Your task to perform on an android device: stop showing notifications on the lock screen Image 0: 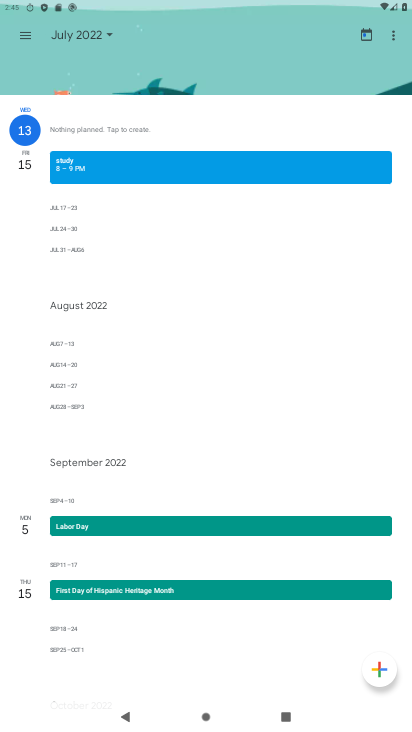
Step 0: press home button
Your task to perform on an android device: stop showing notifications on the lock screen Image 1: 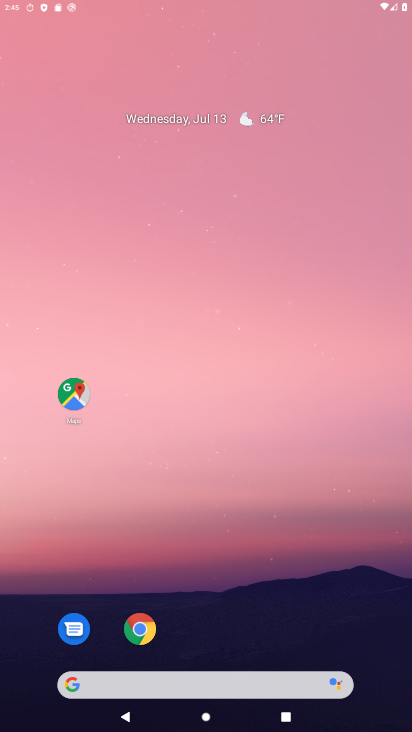
Step 1: drag from (320, 583) to (305, 93)
Your task to perform on an android device: stop showing notifications on the lock screen Image 2: 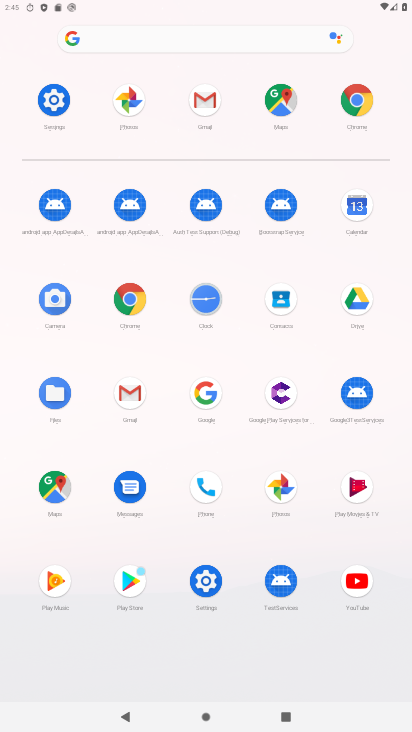
Step 2: click (60, 93)
Your task to perform on an android device: stop showing notifications on the lock screen Image 3: 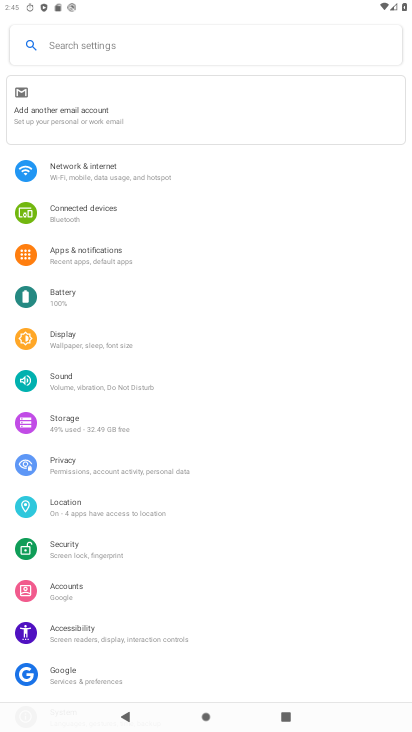
Step 3: click (93, 253)
Your task to perform on an android device: stop showing notifications on the lock screen Image 4: 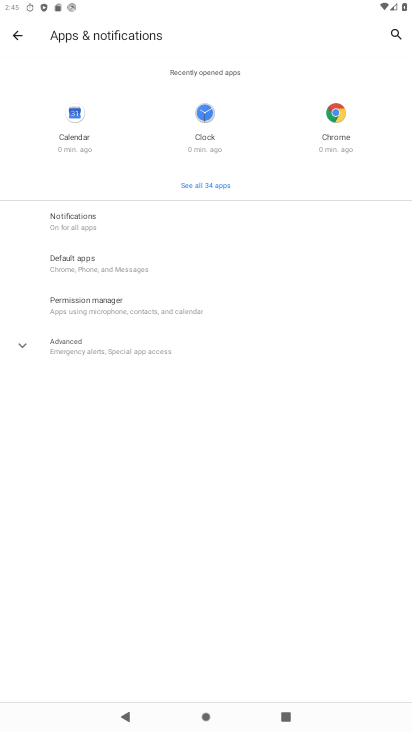
Step 4: click (105, 221)
Your task to perform on an android device: stop showing notifications on the lock screen Image 5: 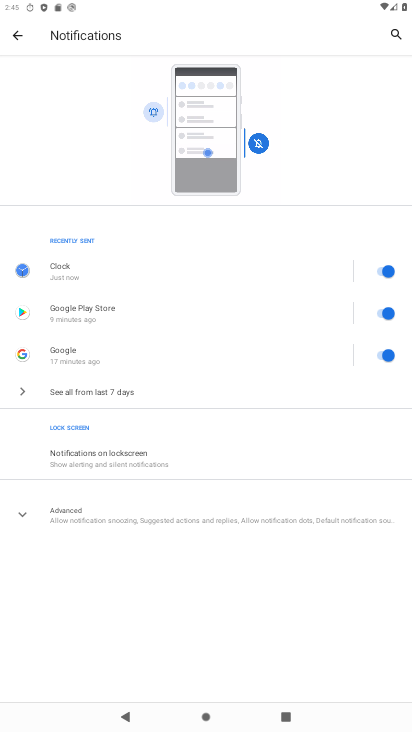
Step 5: click (94, 463)
Your task to perform on an android device: stop showing notifications on the lock screen Image 6: 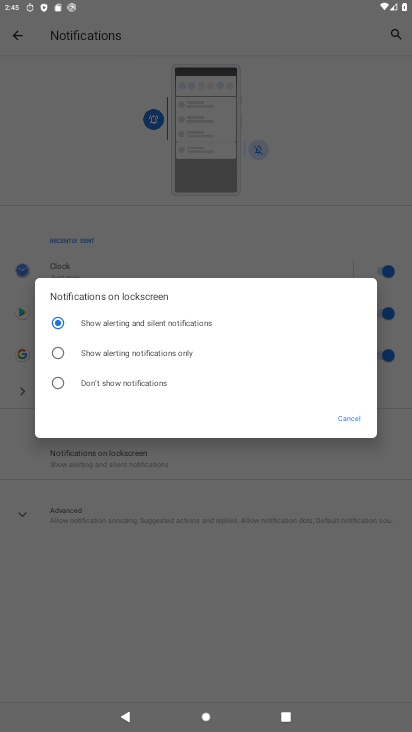
Step 6: click (58, 383)
Your task to perform on an android device: stop showing notifications on the lock screen Image 7: 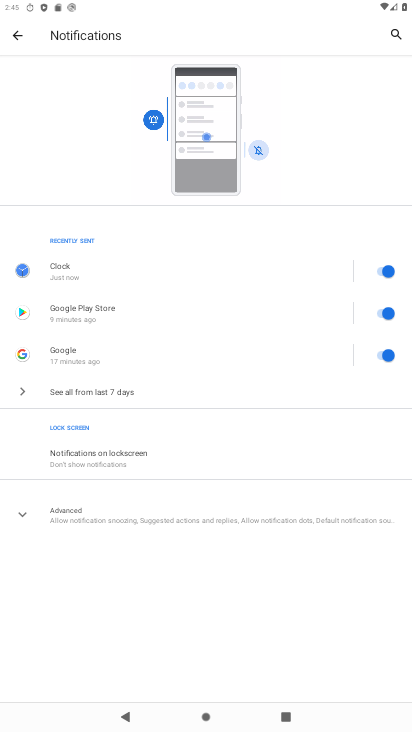
Step 7: task complete